Your task to perform on an android device: remove spam from my inbox in the gmail app Image 0: 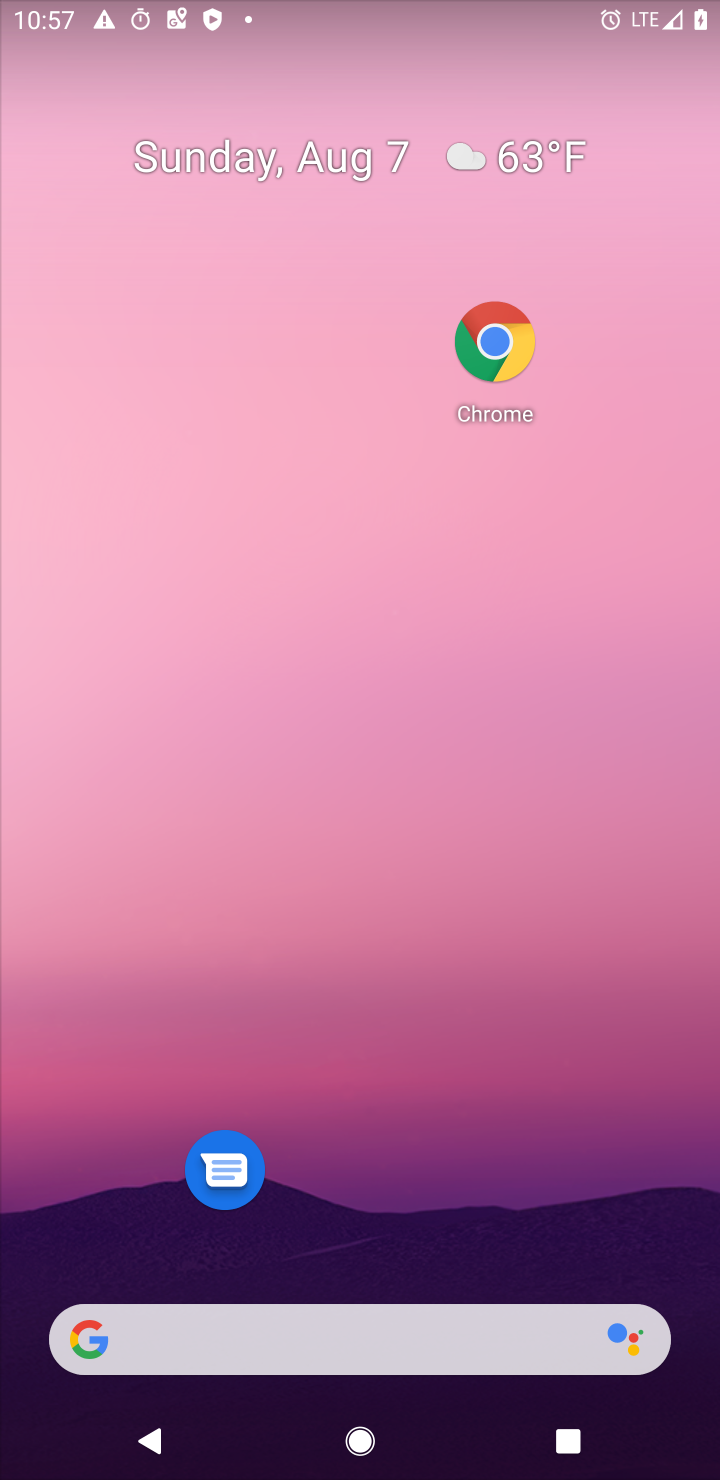
Step 0: click (703, 59)
Your task to perform on an android device: remove spam from my inbox in the gmail app Image 1: 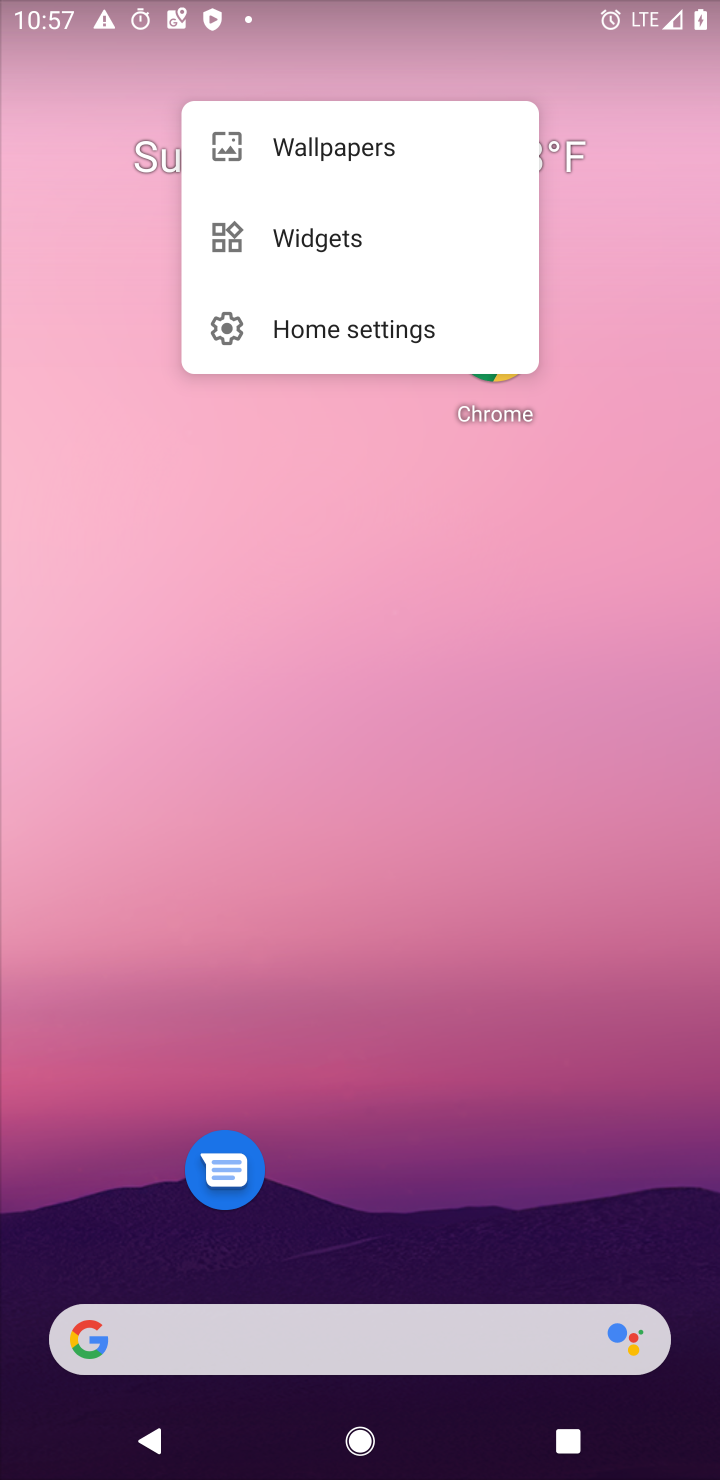
Step 1: drag from (392, 1309) to (280, 626)
Your task to perform on an android device: remove spam from my inbox in the gmail app Image 2: 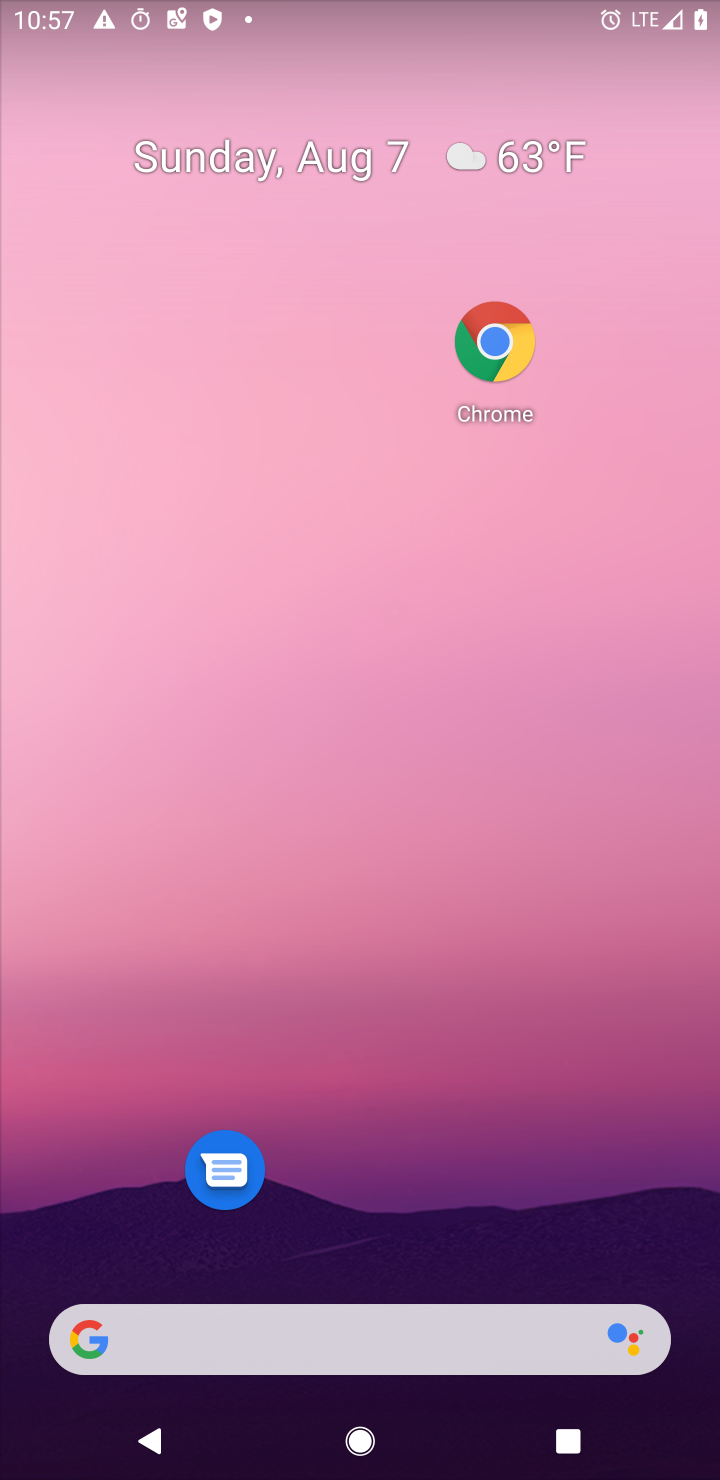
Step 2: click (582, 888)
Your task to perform on an android device: remove spam from my inbox in the gmail app Image 3: 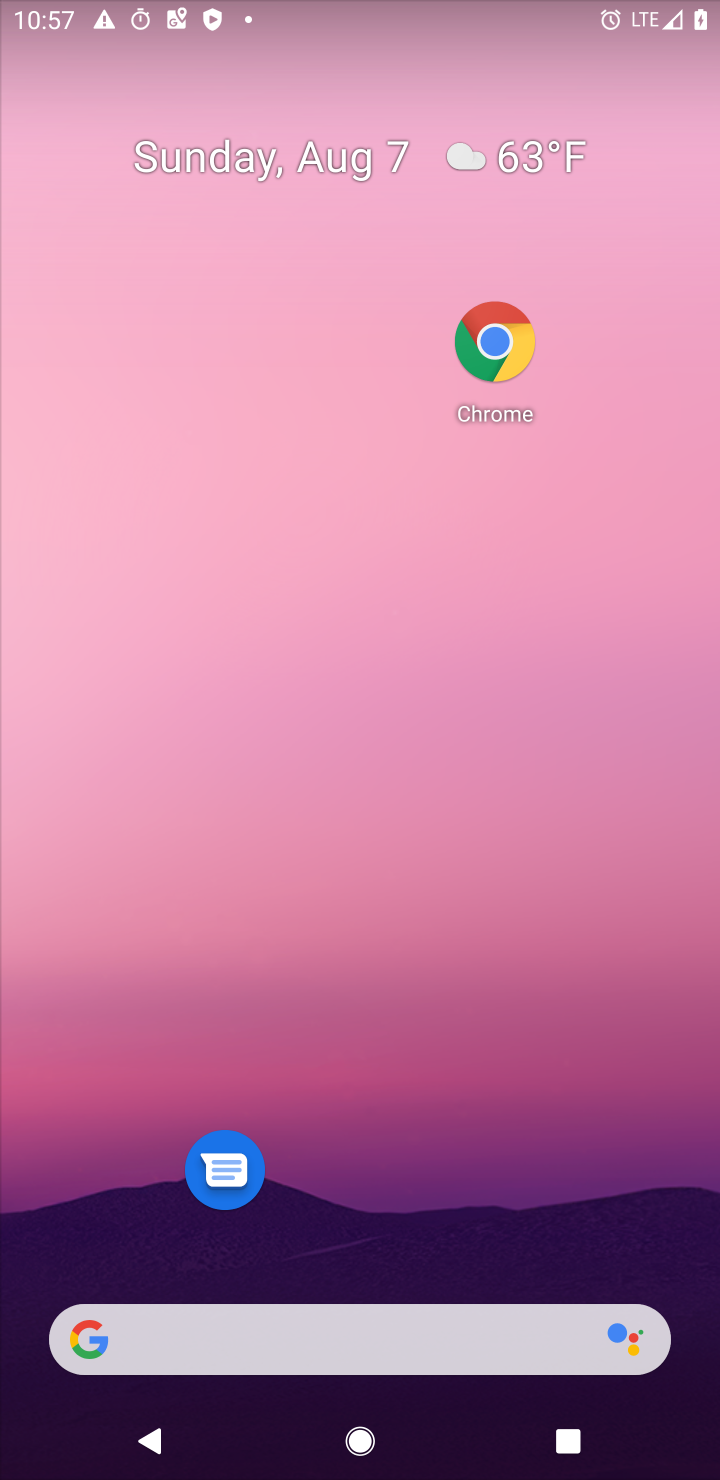
Step 3: drag from (434, 1333) to (361, 111)
Your task to perform on an android device: remove spam from my inbox in the gmail app Image 4: 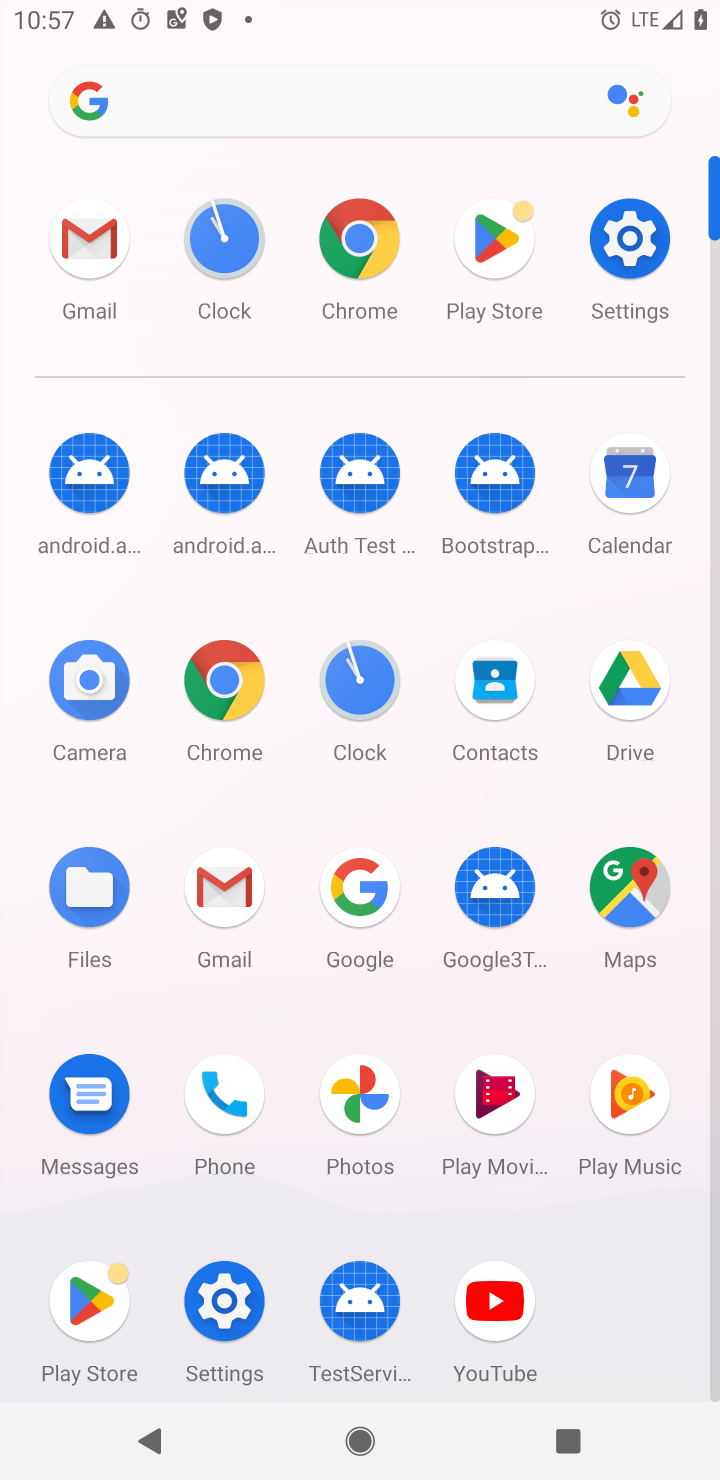
Step 4: click (235, 897)
Your task to perform on an android device: remove spam from my inbox in the gmail app Image 5: 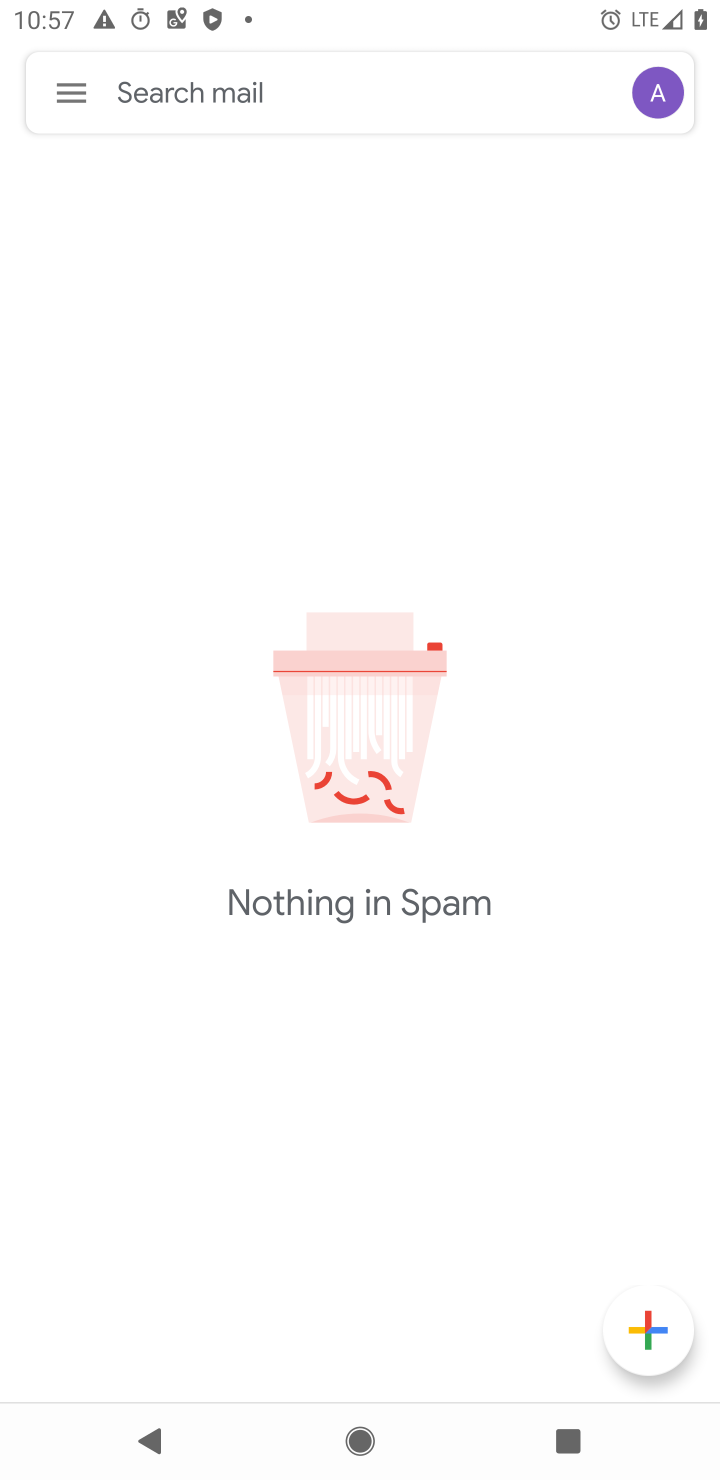
Step 5: click (59, 92)
Your task to perform on an android device: remove spam from my inbox in the gmail app Image 6: 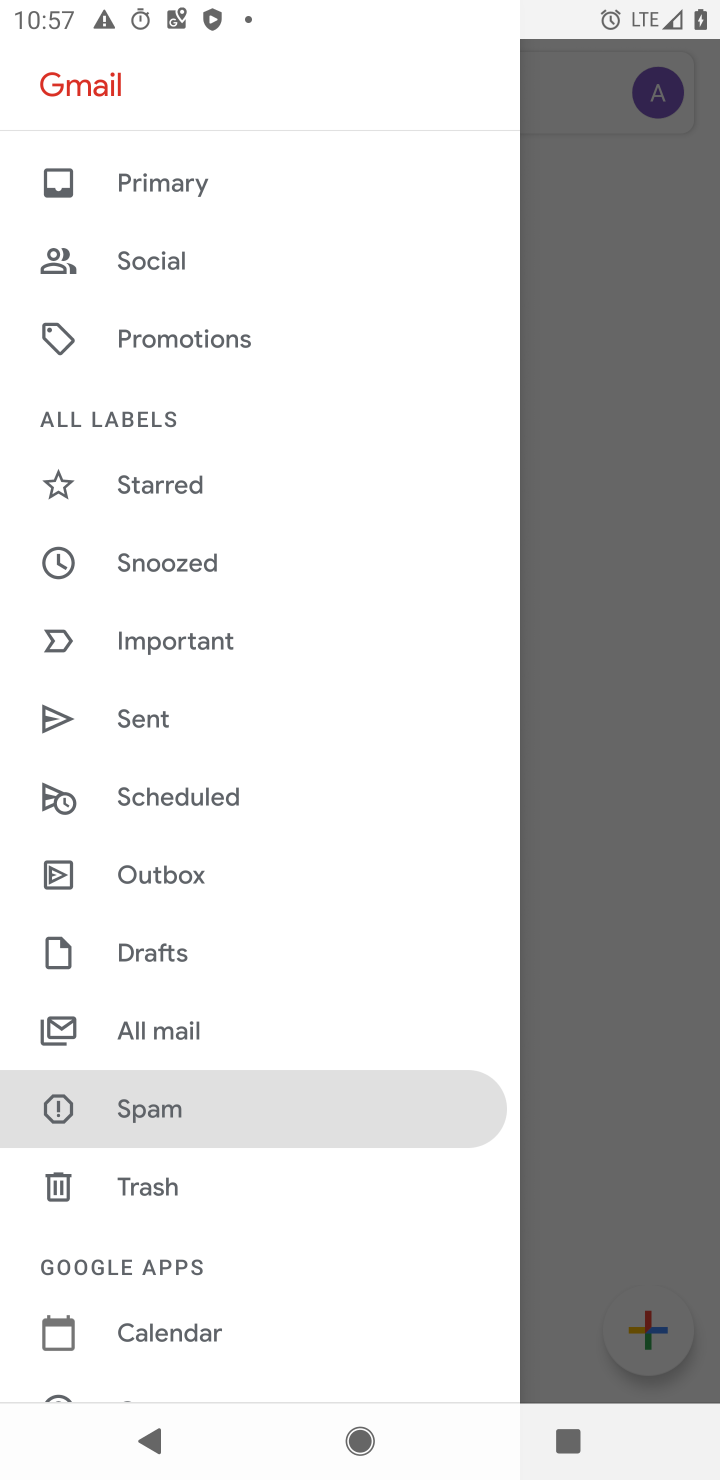
Step 6: task complete